Your task to perform on an android device: Open Google Chrome and open the bookmarks view Image 0: 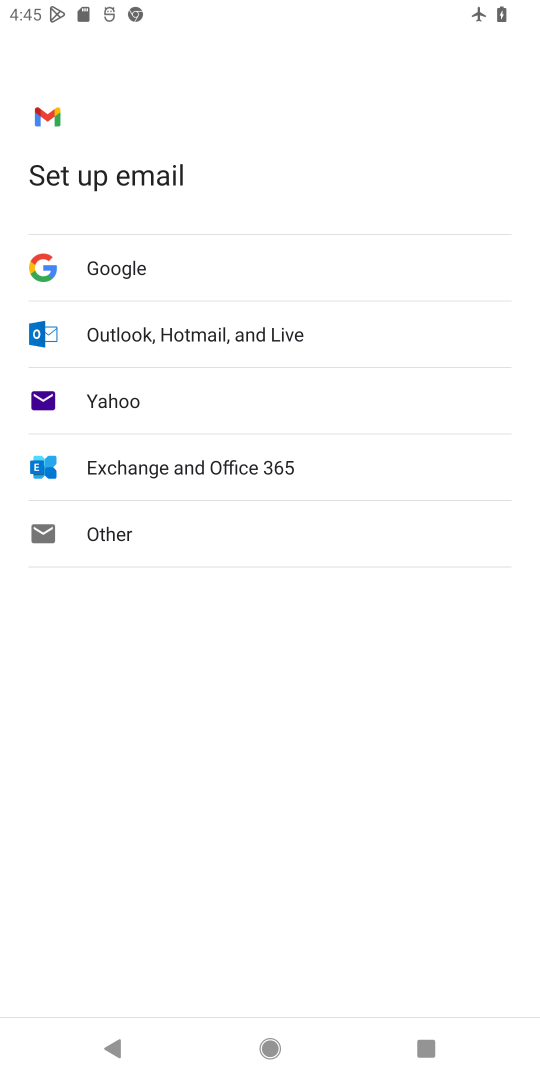
Step 0: press home button
Your task to perform on an android device: Open Google Chrome and open the bookmarks view Image 1: 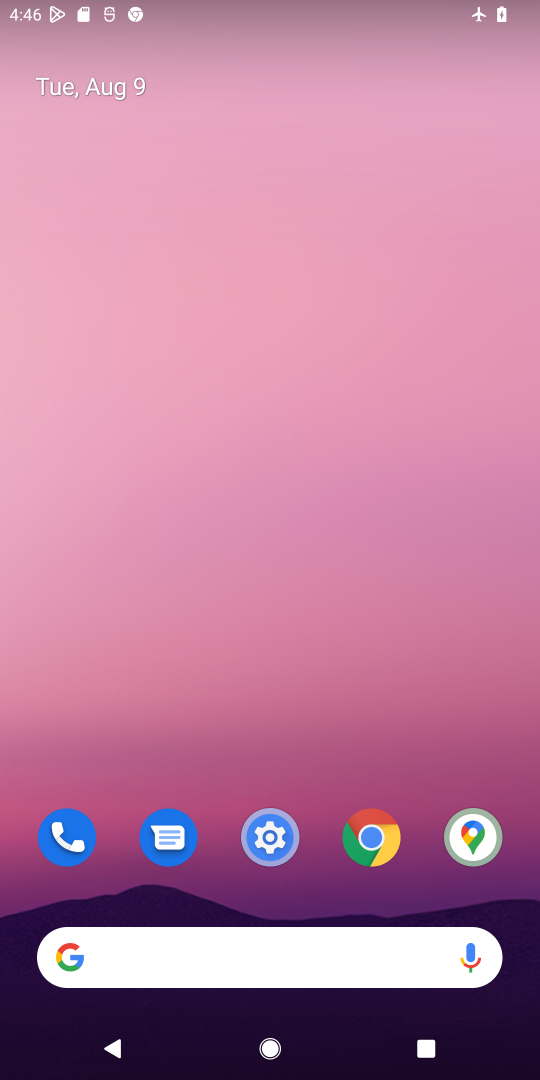
Step 1: click (364, 830)
Your task to perform on an android device: Open Google Chrome and open the bookmarks view Image 2: 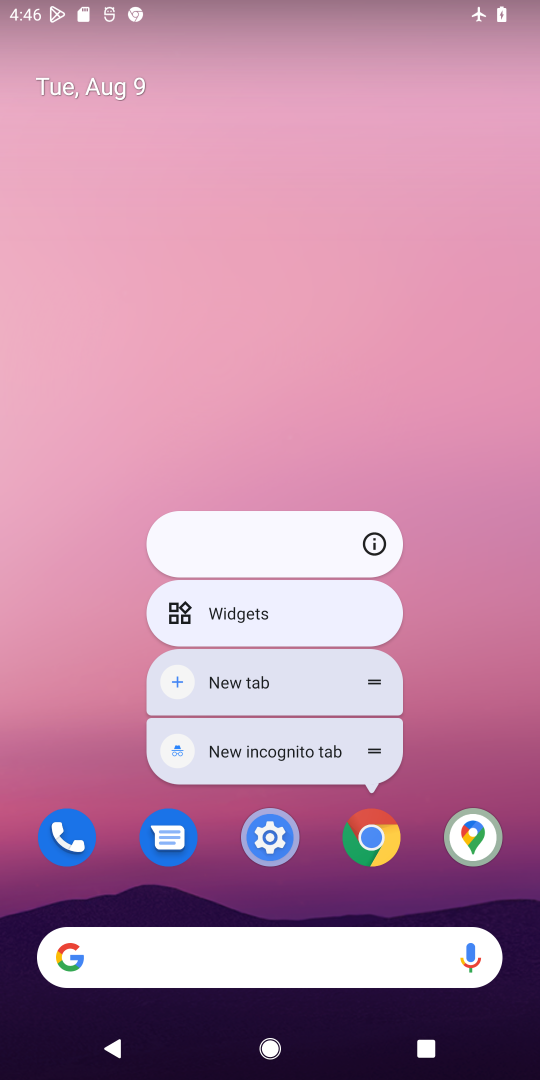
Step 2: click (379, 866)
Your task to perform on an android device: Open Google Chrome and open the bookmarks view Image 3: 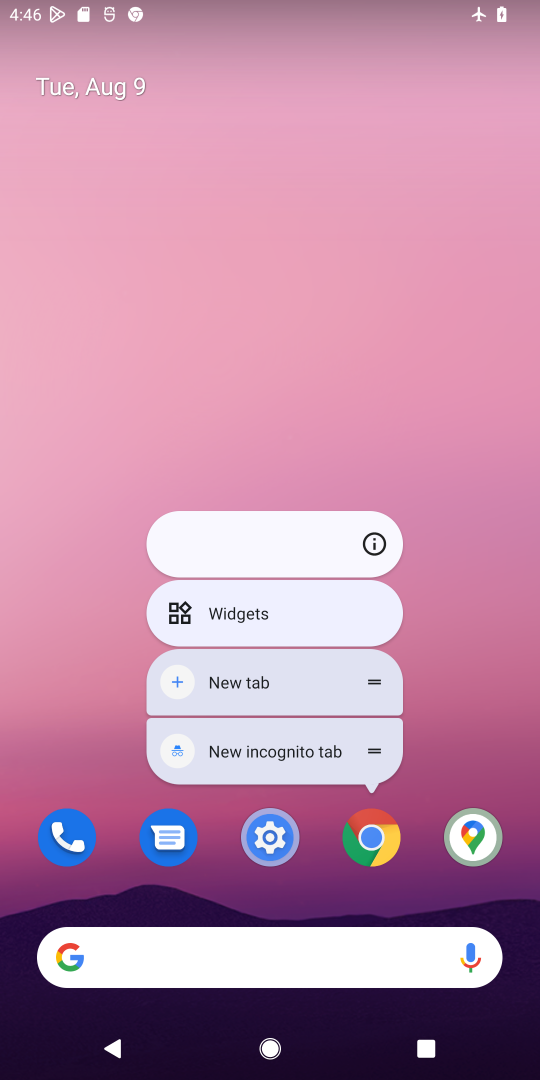
Step 3: click (376, 842)
Your task to perform on an android device: Open Google Chrome and open the bookmarks view Image 4: 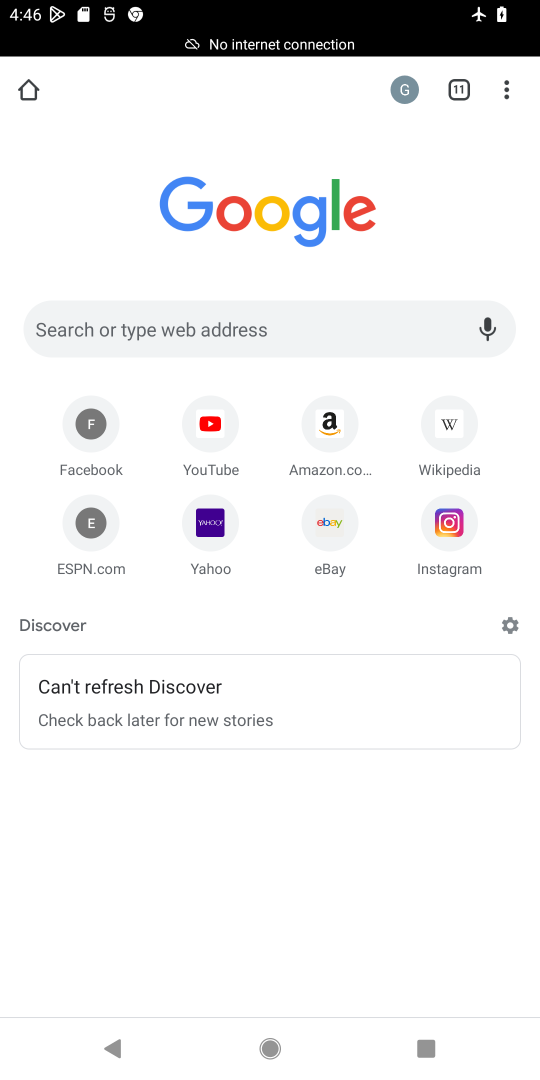
Step 4: click (504, 95)
Your task to perform on an android device: Open Google Chrome and open the bookmarks view Image 5: 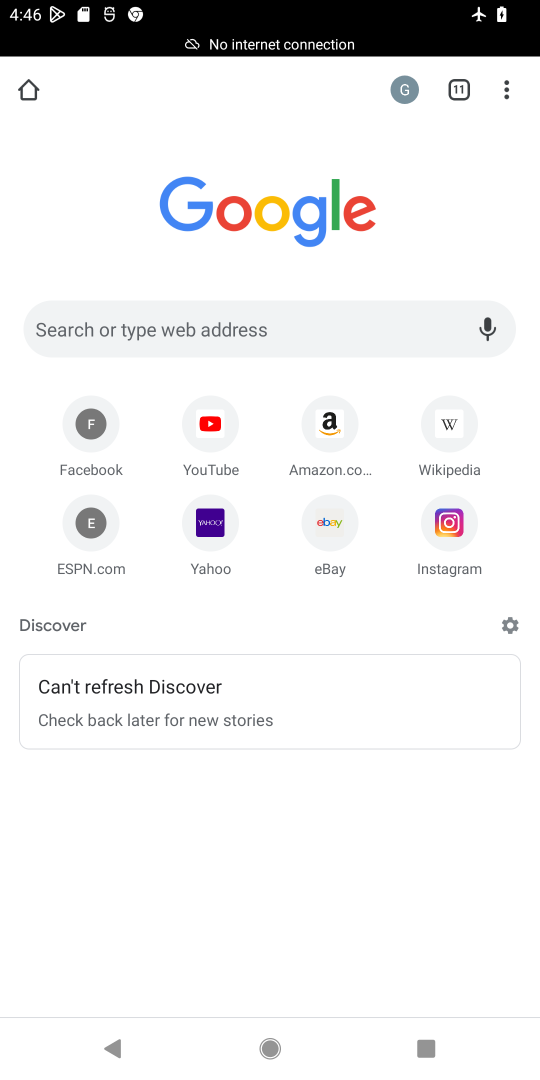
Step 5: click (504, 95)
Your task to perform on an android device: Open Google Chrome and open the bookmarks view Image 6: 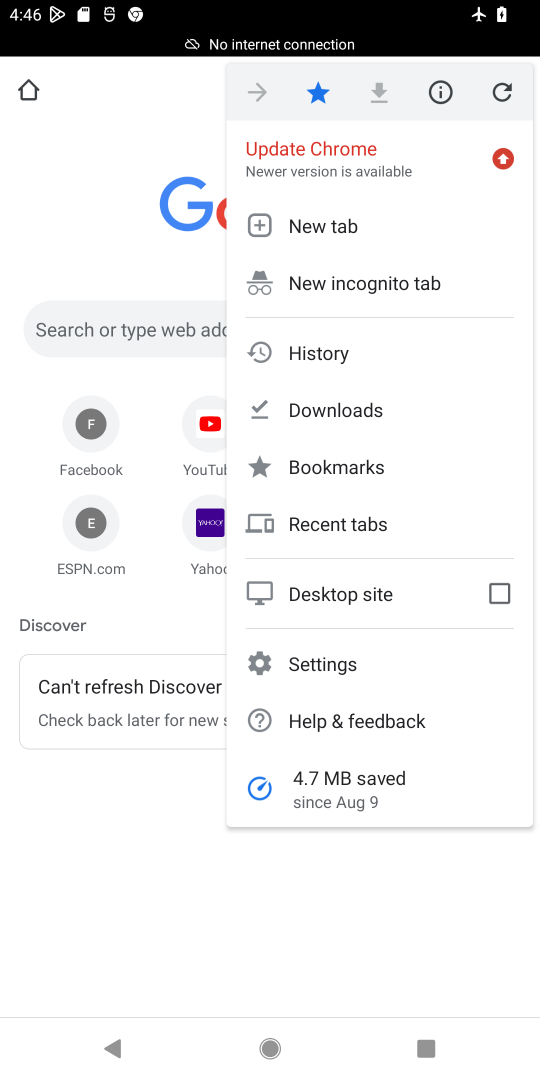
Step 6: click (354, 464)
Your task to perform on an android device: Open Google Chrome and open the bookmarks view Image 7: 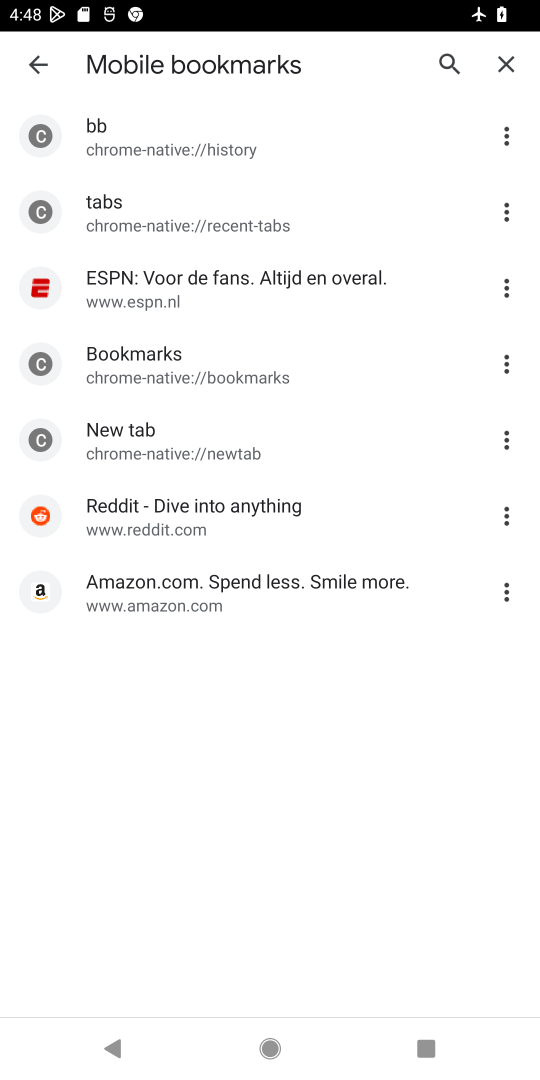
Step 7: task complete